Your task to perform on an android device: Open Maps and search for coffee Image 0: 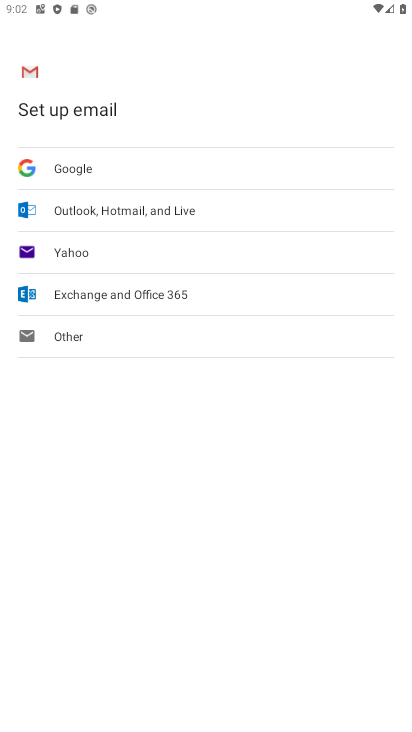
Step 0: press home button
Your task to perform on an android device: Open Maps and search for coffee Image 1: 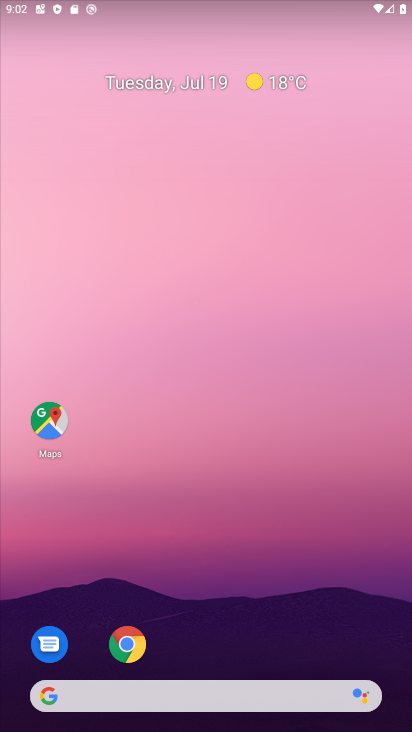
Step 1: drag from (240, 724) to (232, 227)
Your task to perform on an android device: Open Maps and search for coffee Image 2: 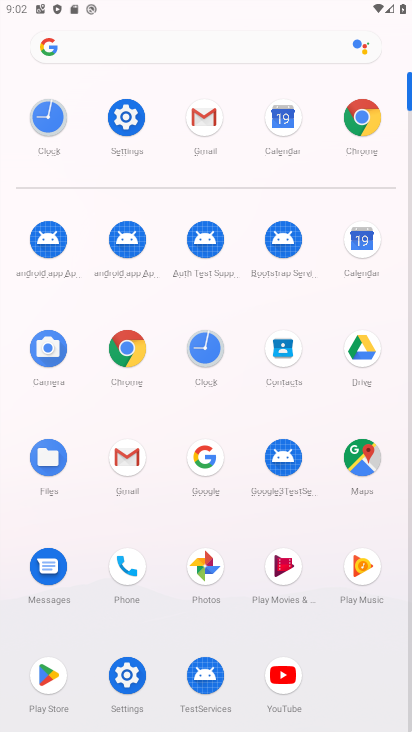
Step 2: click (360, 457)
Your task to perform on an android device: Open Maps and search for coffee Image 3: 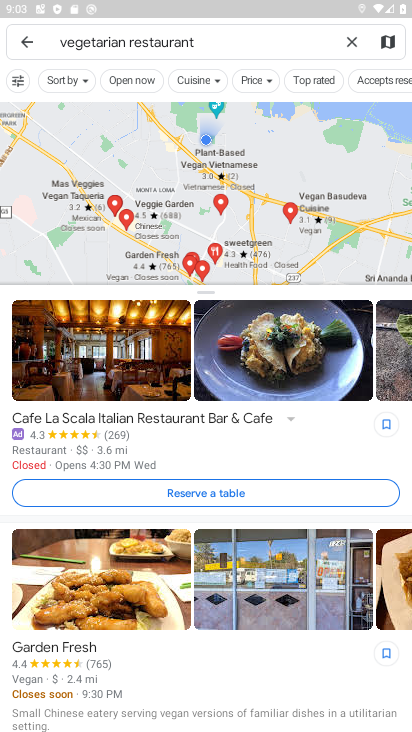
Step 3: click (355, 39)
Your task to perform on an android device: Open Maps and search for coffee Image 4: 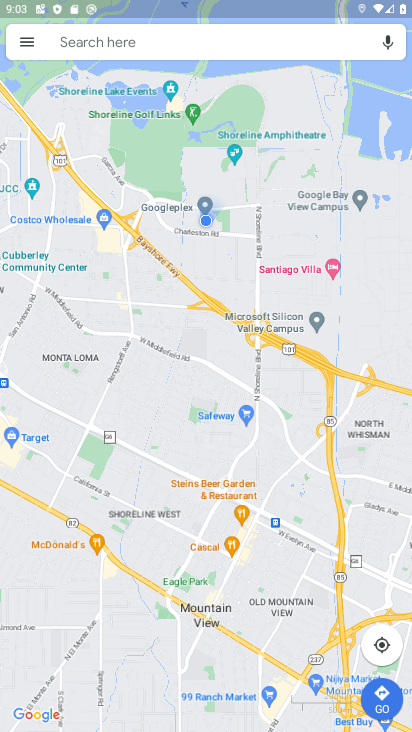
Step 4: click (247, 44)
Your task to perform on an android device: Open Maps and search for coffee Image 5: 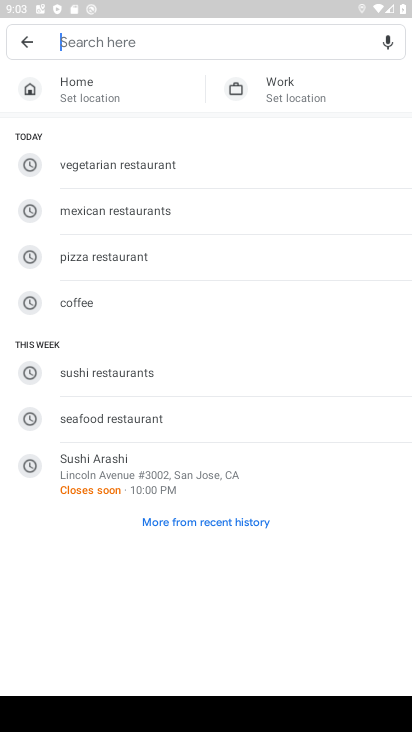
Step 5: type "coffee"
Your task to perform on an android device: Open Maps and search for coffee Image 6: 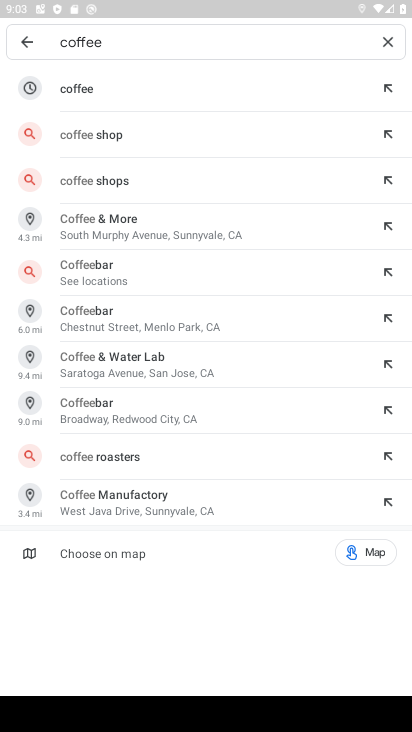
Step 6: click (69, 85)
Your task to perform on an android device: Open Maps and search for coffee Image 7: 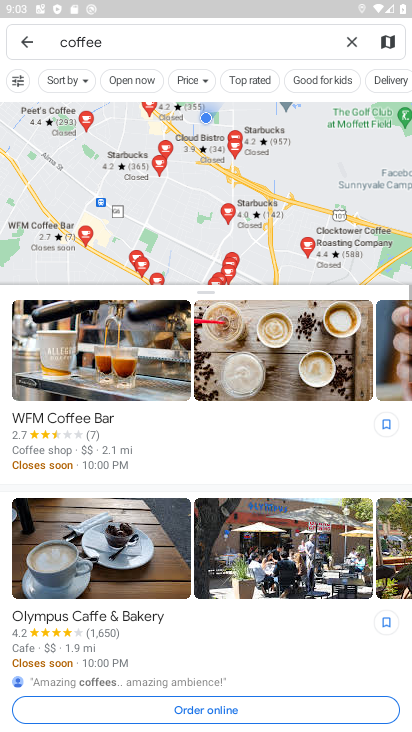
Step 7: task complete